Your task to perform on an android device: Search for sushi restaurants on Maps Image 0: 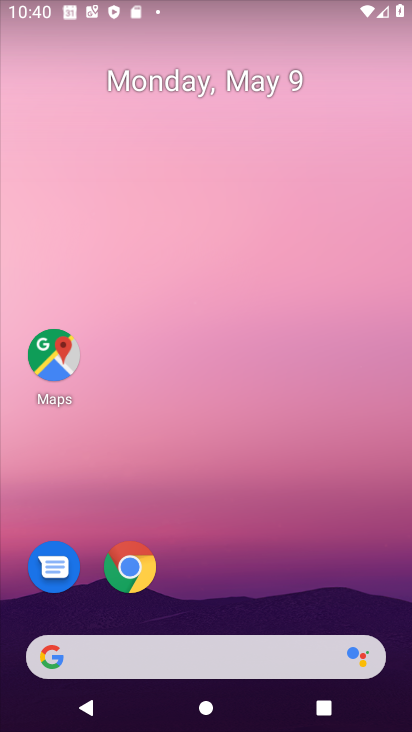
Step 0: click (64, 348)
Your task to perform on an android device: Search for sushi restaurants on Maps Image 1: 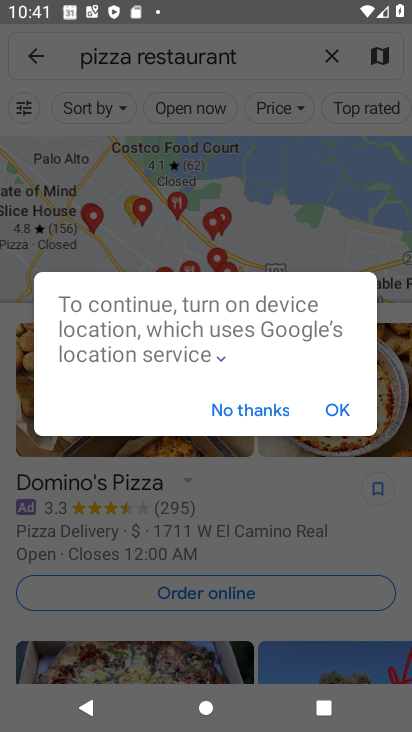
Step 1: click (335, 415)
Your task to perform on an android device: Search for sushi restaurants on Maps Image 2: 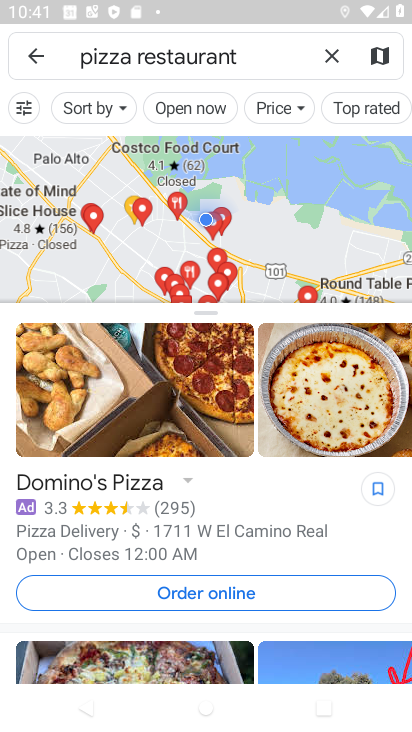
Step 2: click (333, 51)
Your task to perform on an android device: Search for sushi restaurants on Maps Image 3: 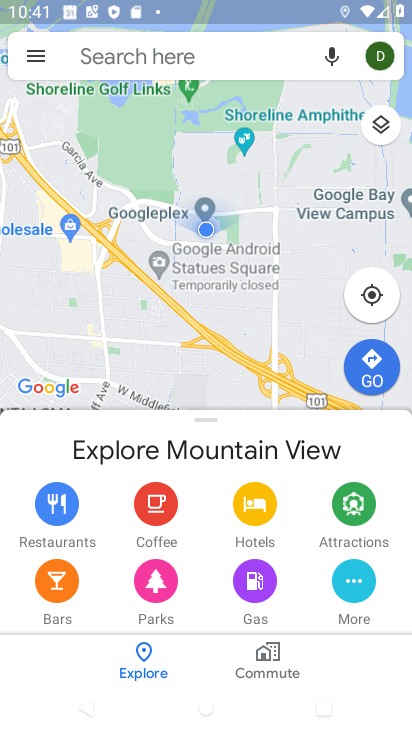
Step 3: click (214, 54)
Your task to perform on an android device: Search for sushi restaurants on Maps Image 4: 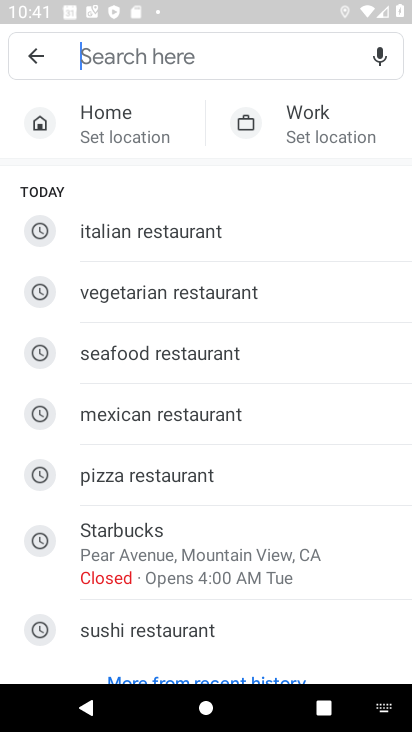
Step 4: type "sushi"
Your task to perform on an android device: Search for sushi restaurants on Maps Image 5: 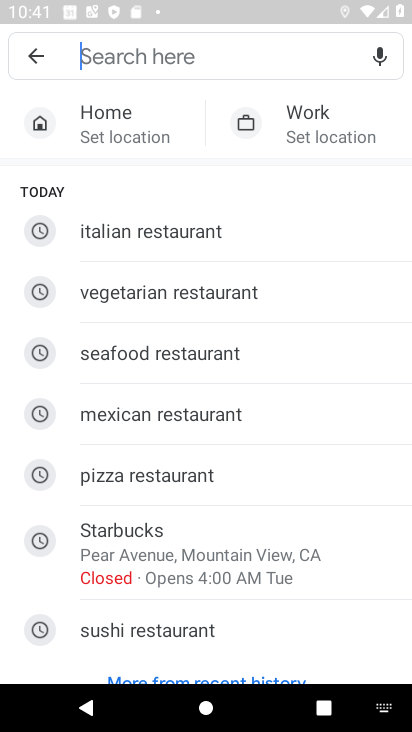
Step 5: click (192, 625)
Your task to perform on an android device: Search for sushi restaurants on Maps Image 6: 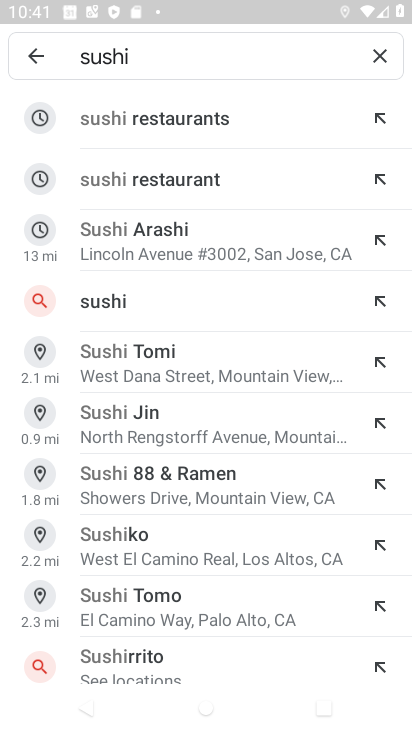
Step 6: click (194, 126)
Your task to perform on an android device: Search for sushi restaurants on Maps Image 7: 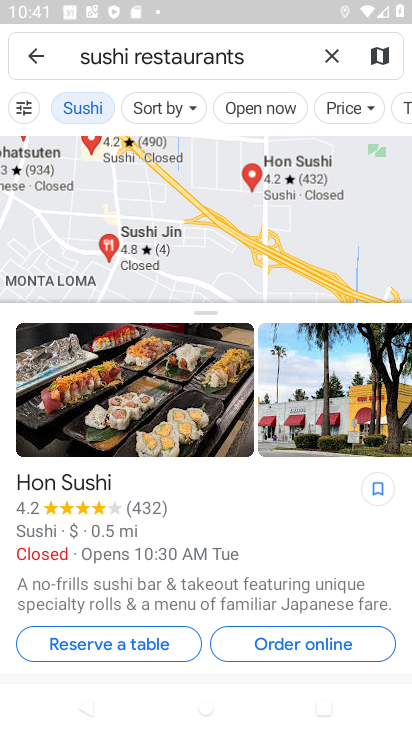
Step 7: task complete